Your task to perform on an android device: turn notification dots on Image 0: 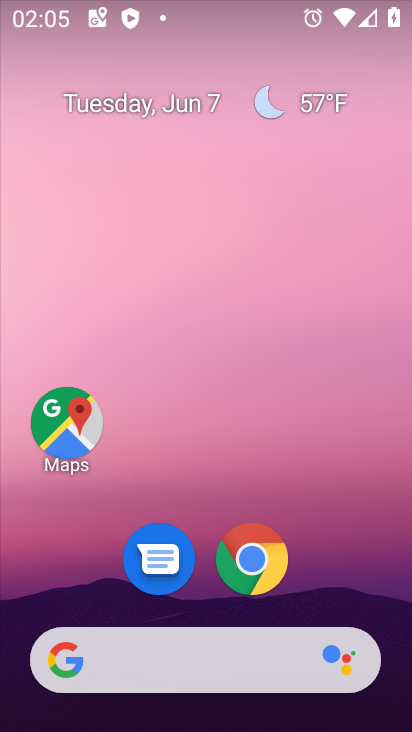
Step 0: drag from (352, 575) to (284, 119)
Your task to perform on an android device: turn notification dots on Image 1: 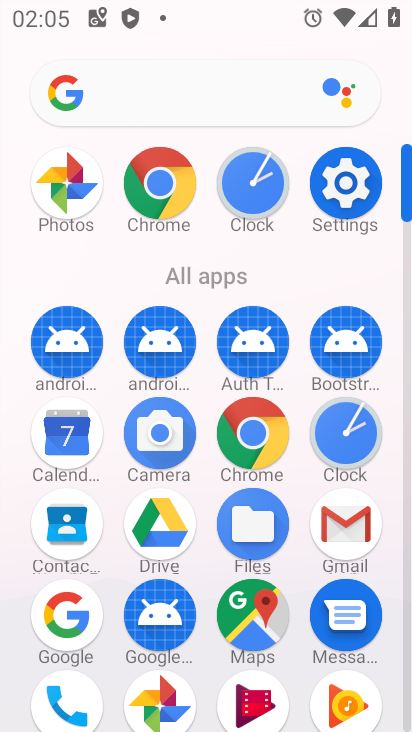
Step 1: click (344, 182)
Your task to perform on an android device: turn notification dots on Image 2: 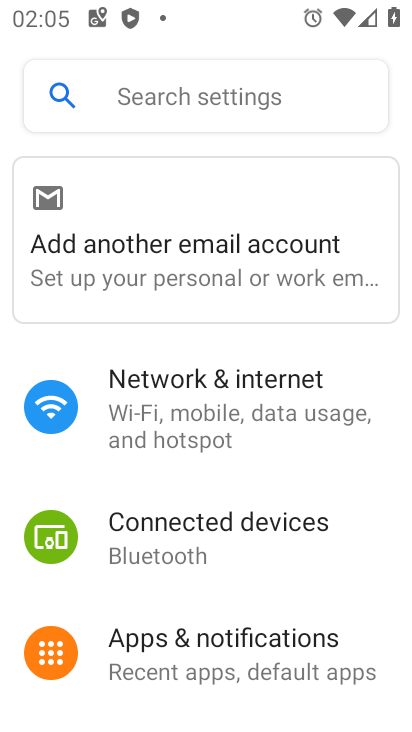
Step 2: click (154, 645)
Your task to perform on an android device: turn notification dots on Image 3: 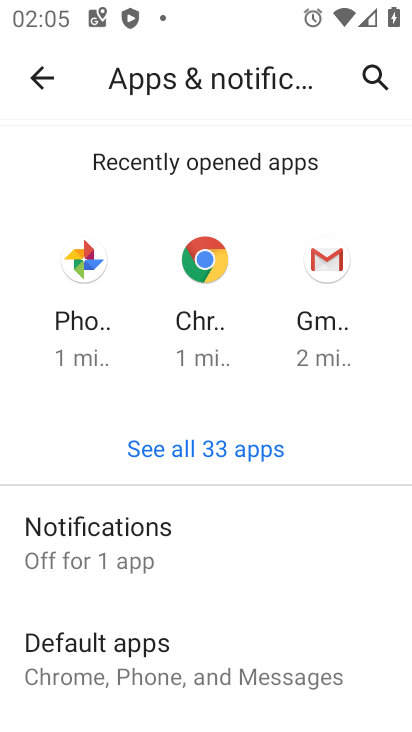
Step 3: click (70, 551)
Your task to perform on an android device: turn notification dots on Image 4: 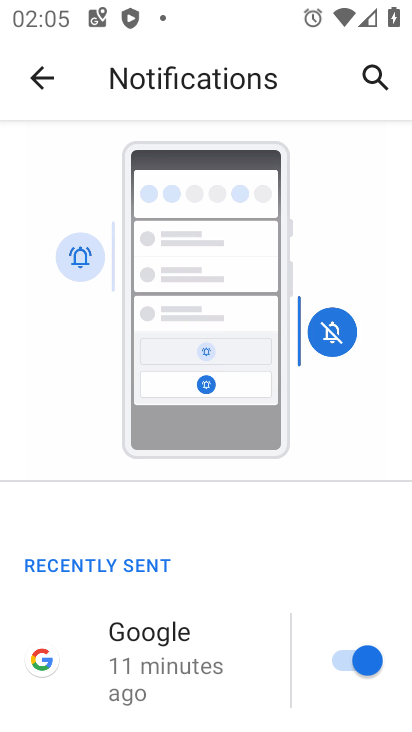
Step 4: drag from (83, 600) to (98, 329)
Your task to perform on an android device: turn notification dots on Image 5: 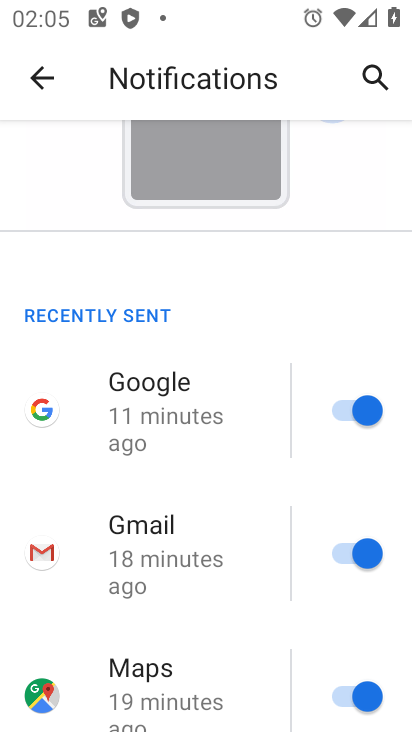
Step 5: drag from (93, 621) to (90, 297)
Your task to perform on an android device: turn notification dots on Image 6: 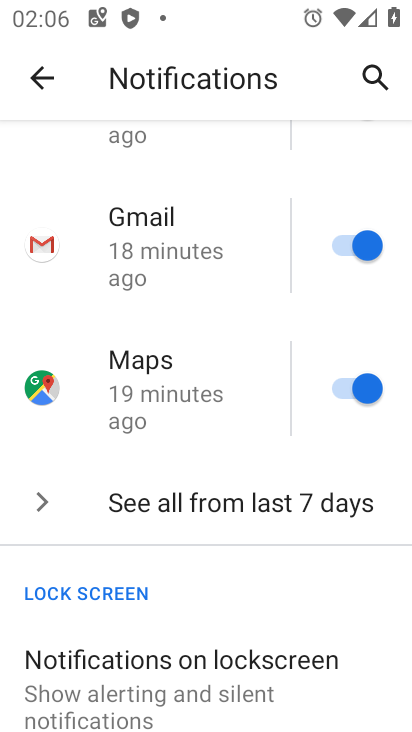
Step 6: drag from (102, 619) to (127, 396)
Your task to perform on an android device: turn notification dots on Image 7: 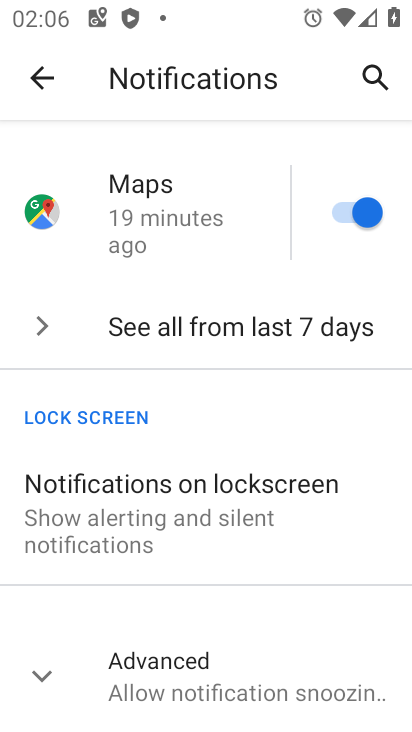
Step 7: click (149, 686)
Your task to perform on an android device: turn notification dots on Image 8: 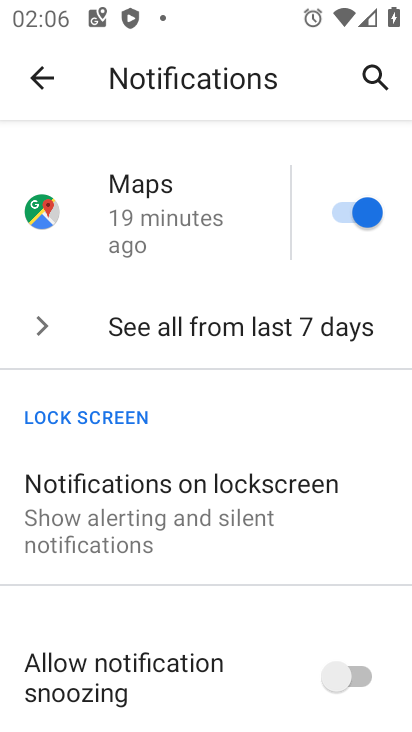
Step 8: drag from (137, 620) to (145, 392)
Your task to perform on an android device: turn notification dots on Image 9: 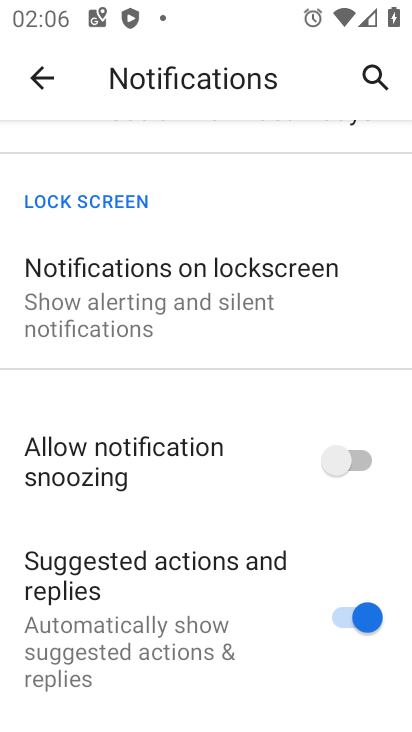
Step 9: drag from (131, 514) to (160, 334)
Your task to perform on an android device: turn notification dots on Image 10: 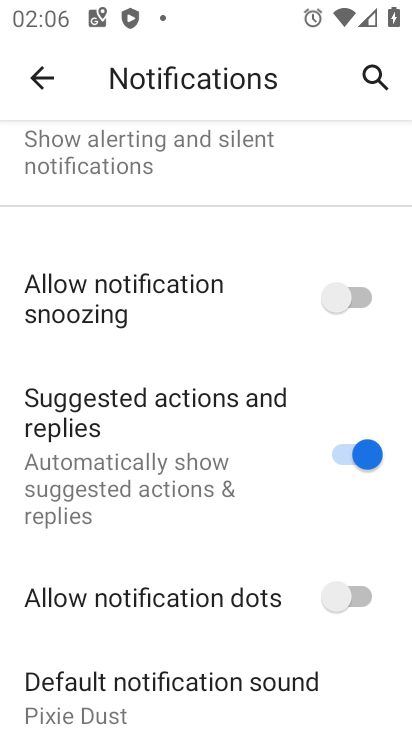
Step 10: click (355, 595)
Your task to perform on an android device: turn notification dots on Image 11: 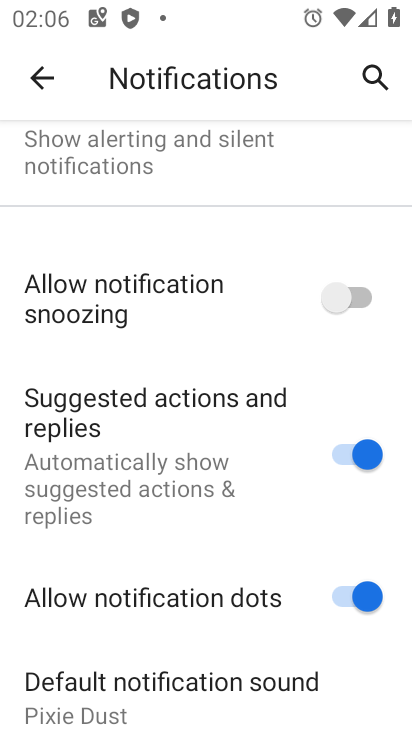
Step 11: task complete